Your task to perform on an android device: Go to notification settings Image 0: 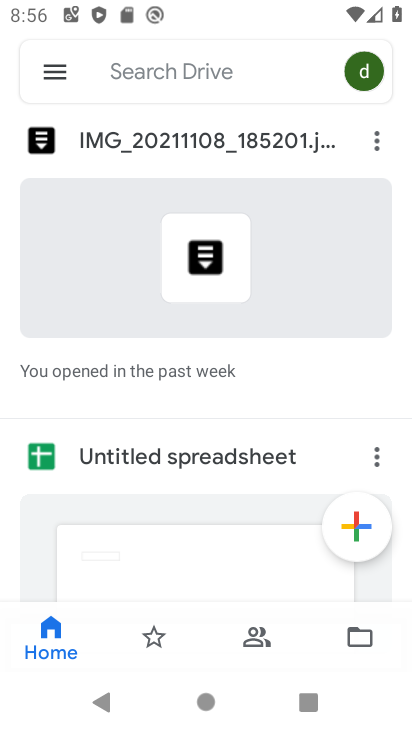
Step 0: press home button
Your task to perform on an android device: Go to notification settings Image 1: 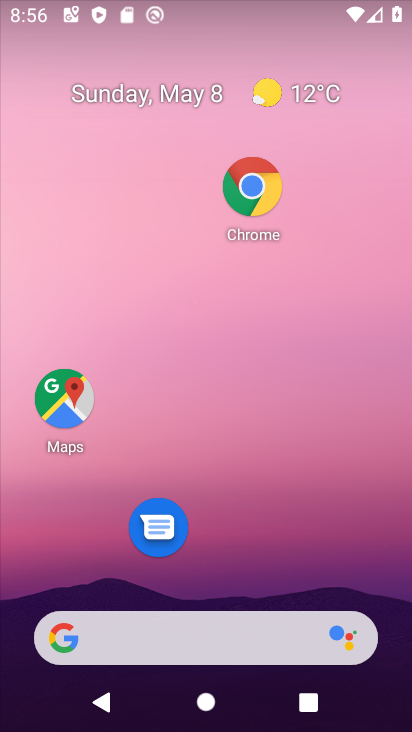
Step 1: drag from (262, 564) to (296, 224)
Your task to perform on an android device: Go to notification settings Image 2: 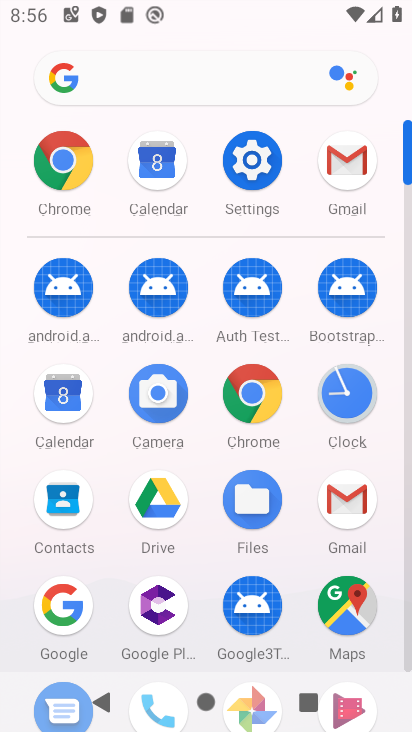
Step 2: click (251, 168)
Your task to perform on an android device: Go to notification settings Image 3: 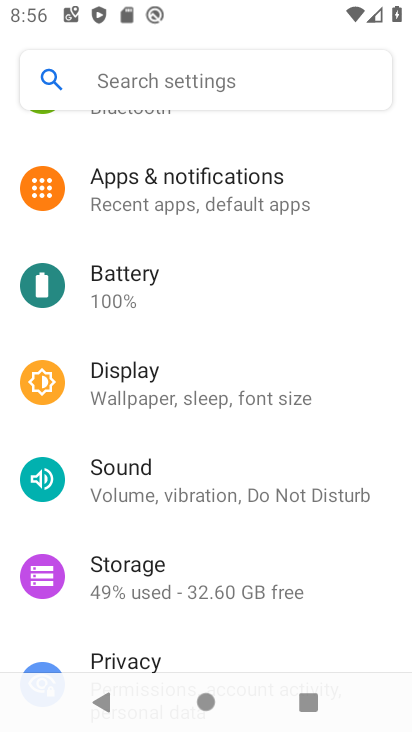
Step 3: drag from (187, 220) to (214, 567)
Your task to perform on an android device: Go to notification settings Image 4: 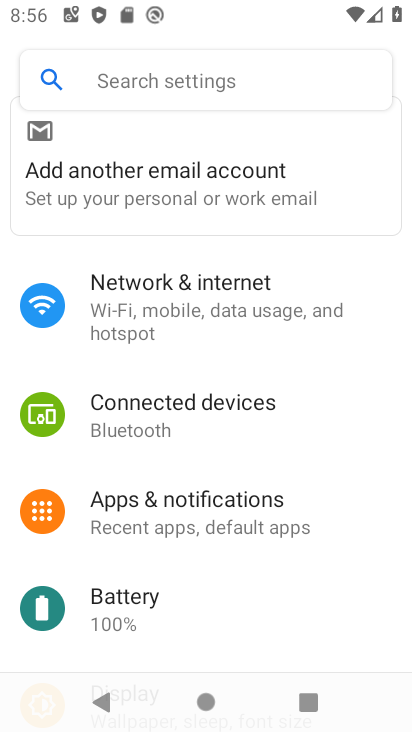
Step 4: click (191, 501)
Your task to perform on an android device: Go to notification settings Image 5: 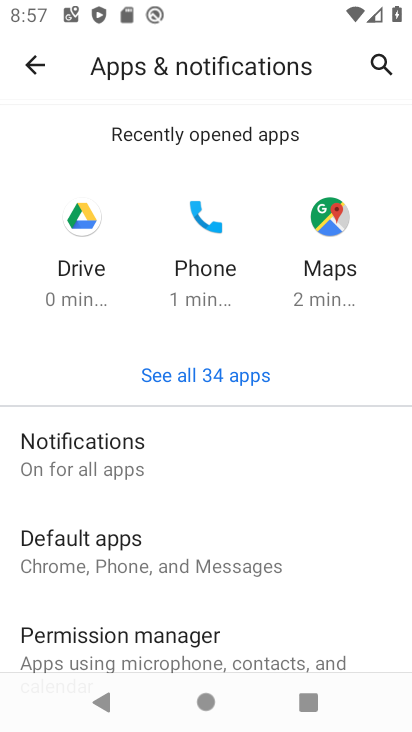
Step 5: task complete